Your task to perform on an android device: Open Google Maps Image 0: 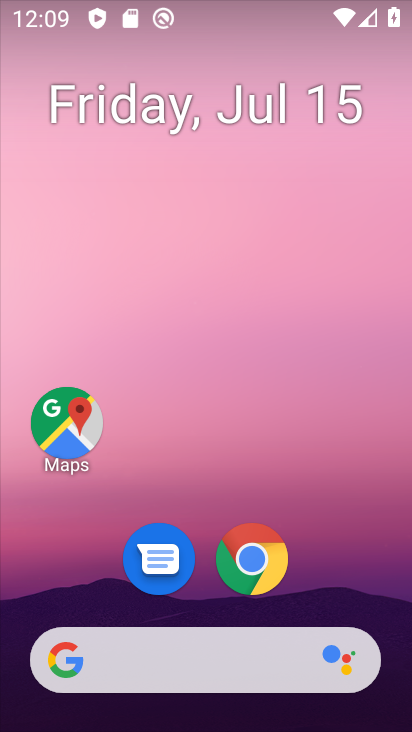
Step 0: drag from (344, 568) to (347, 66)
Your task to perform on an android device: Open Google Maps Image 1: 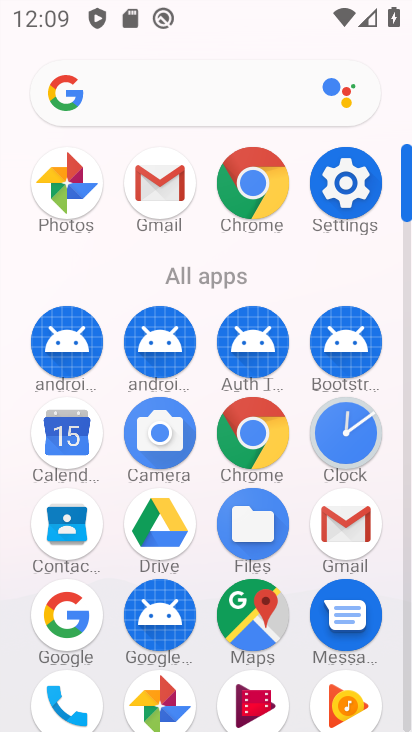
Step 1: click (262, 610)
Your task to perform on an android device: Open Google Maps Image 2: 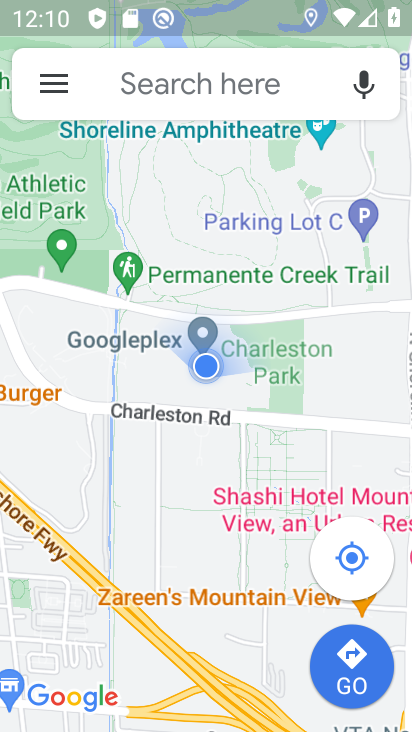
Step 2: task complete